Your task to perform on an android device: open app "DoorDash - Food Delivery" (install if not already installed) and go to login screen Image 0: 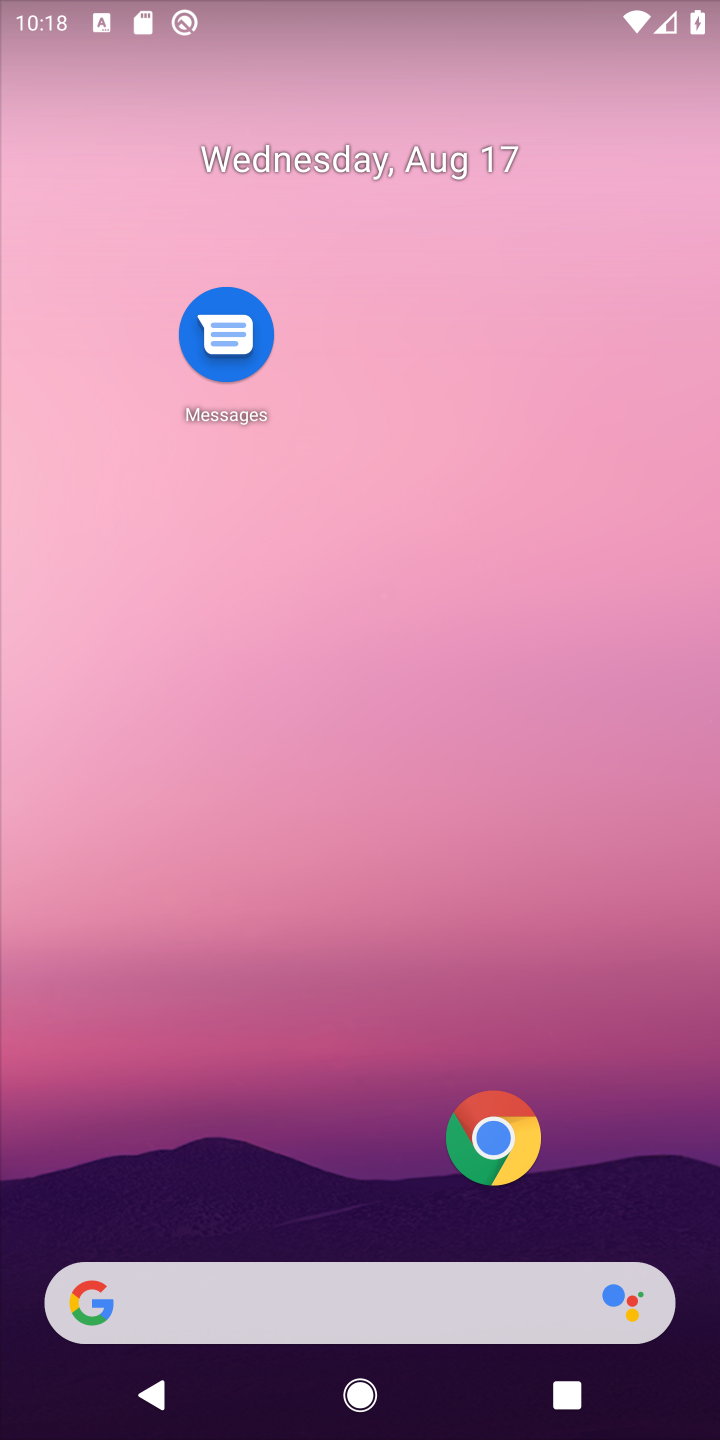
Step 0: drag from (168, 1209) to (215, 377)
Your task to perform on an android device: open app "DoorDash - Food Delivery" (install if not already installed) and go to login screen Image 1: 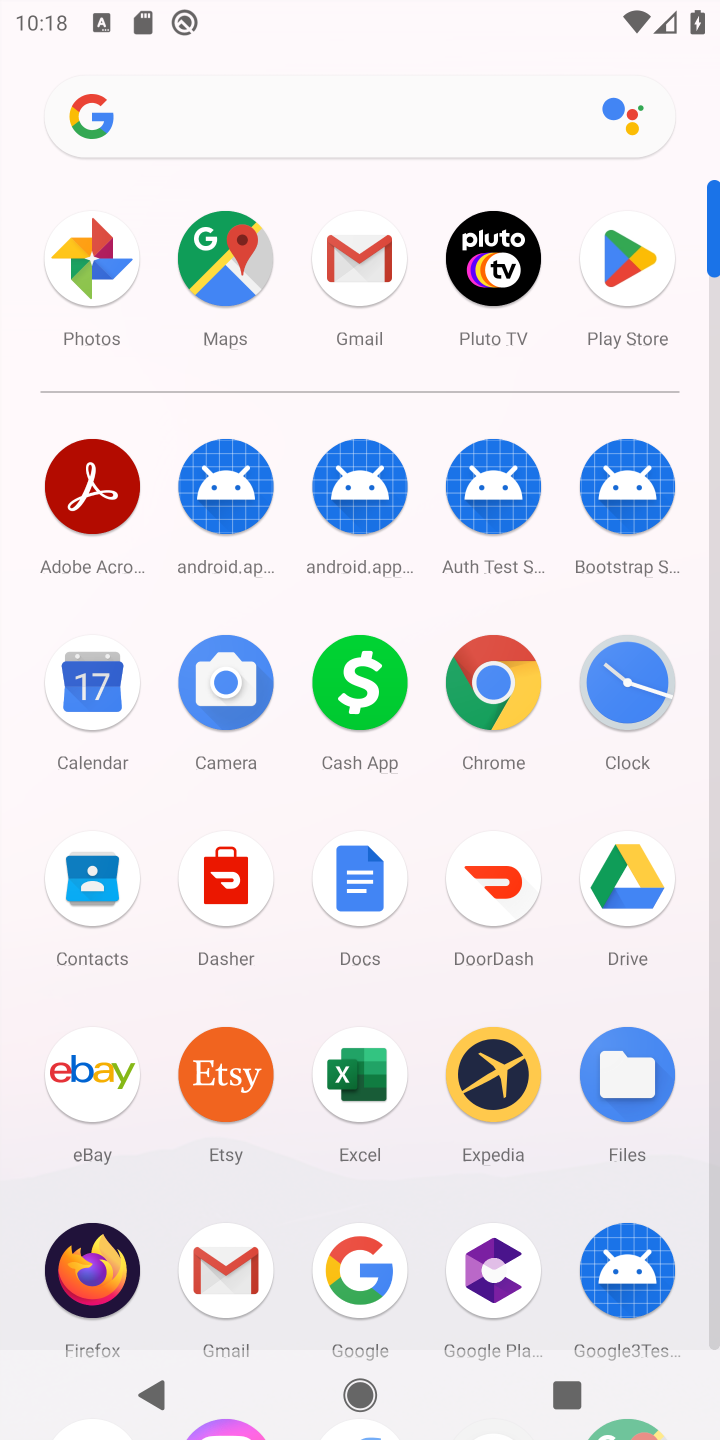
Step 1: click (611, 252)
Your task to perform on an android device: open app "DoorDash - Food Delivery" (install if not already installed) and go to login screen Image 2: 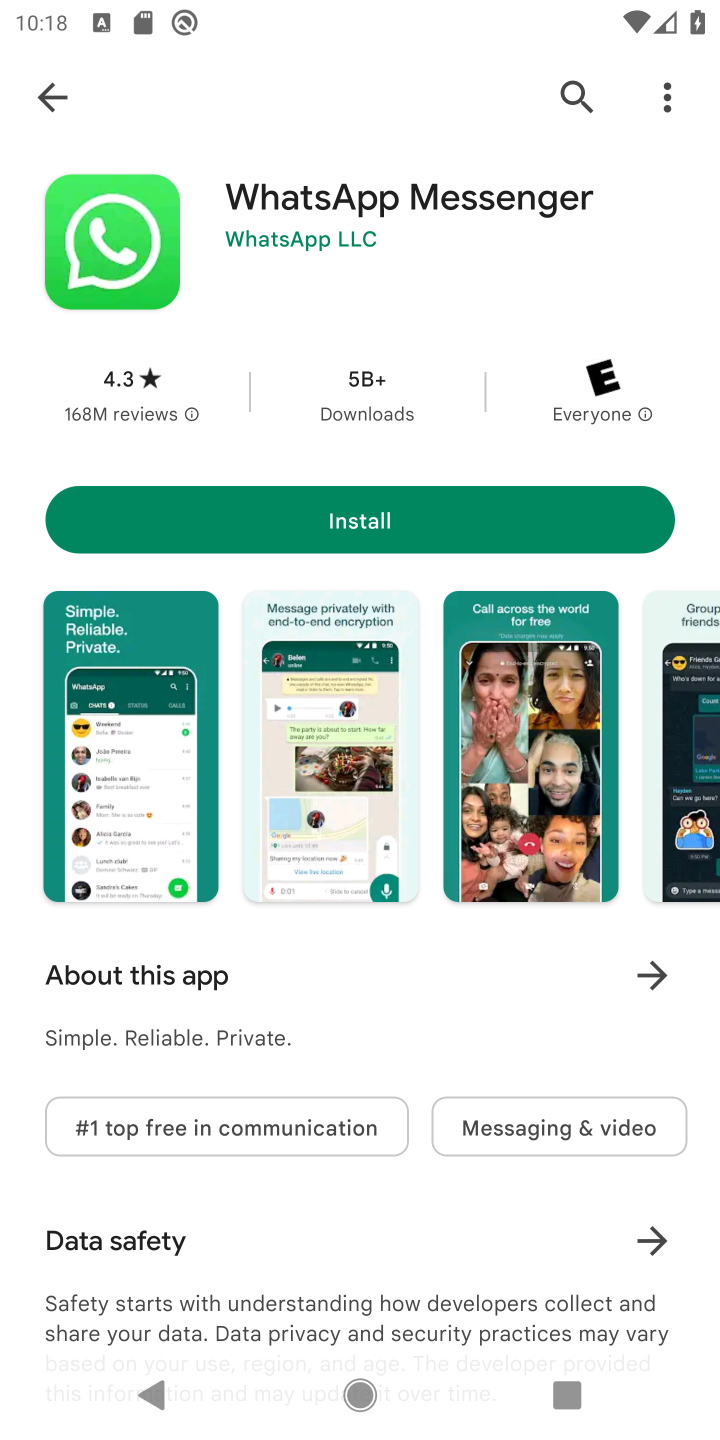
Step 2: click (41, 102)
Your task to perform on an android device: open app "DoorDash - Food Delivery" (install if not already installed) and go to login screen Image 3: 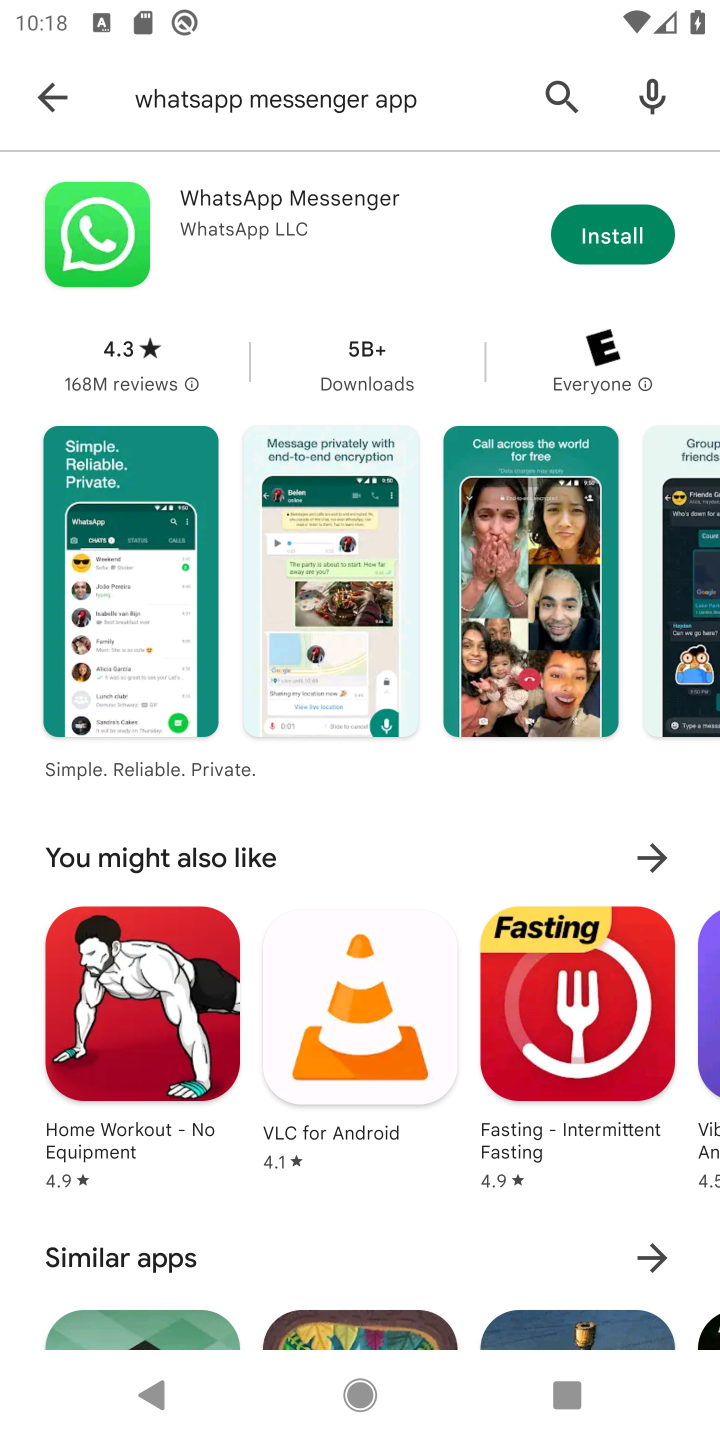
Step 3: click (41, 102)
Your task to perform on an android device: open app "DoorDash - Food Delivery" (install if not already installed) and go to login screen Image 4: 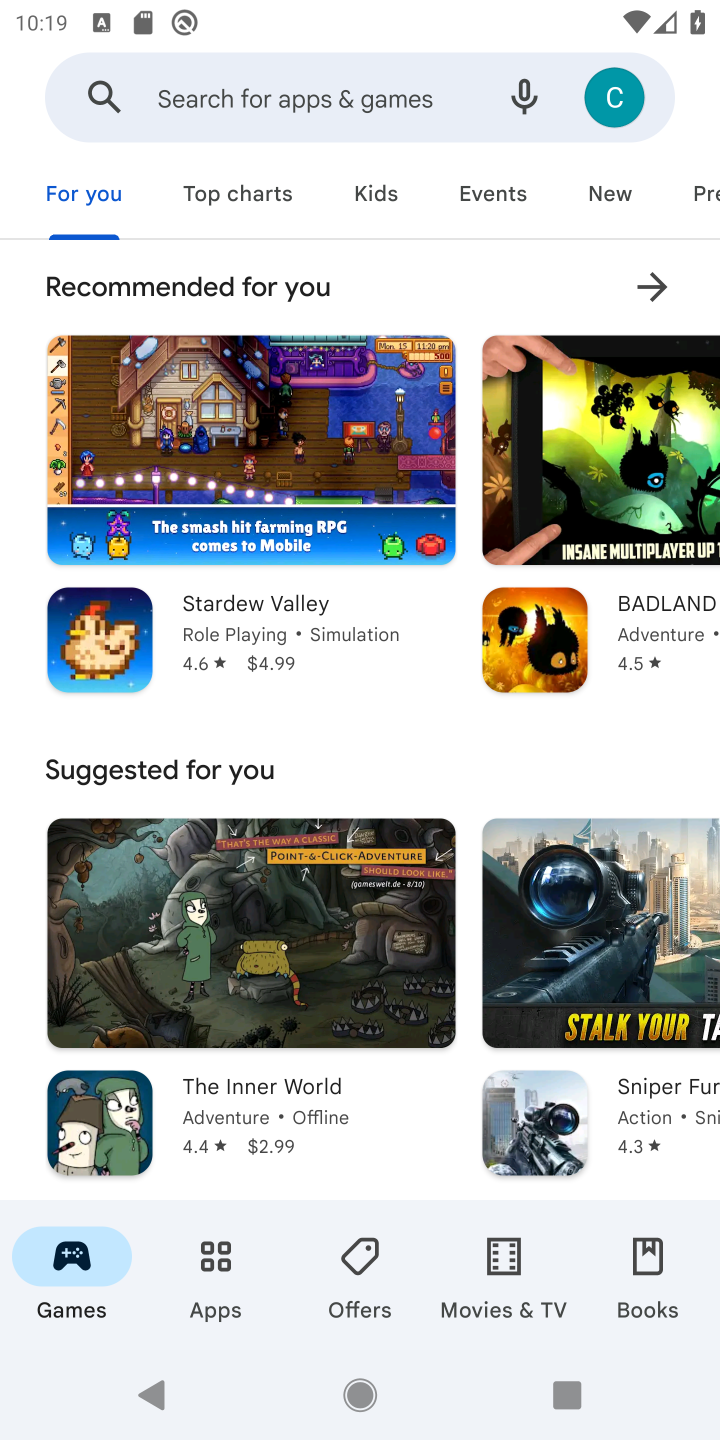
Step 4: click (340, 116)
Your task to perform on an android device: open app "DoorDash - Food Delivery" (install if not already installed) and go to login screen Image 5: 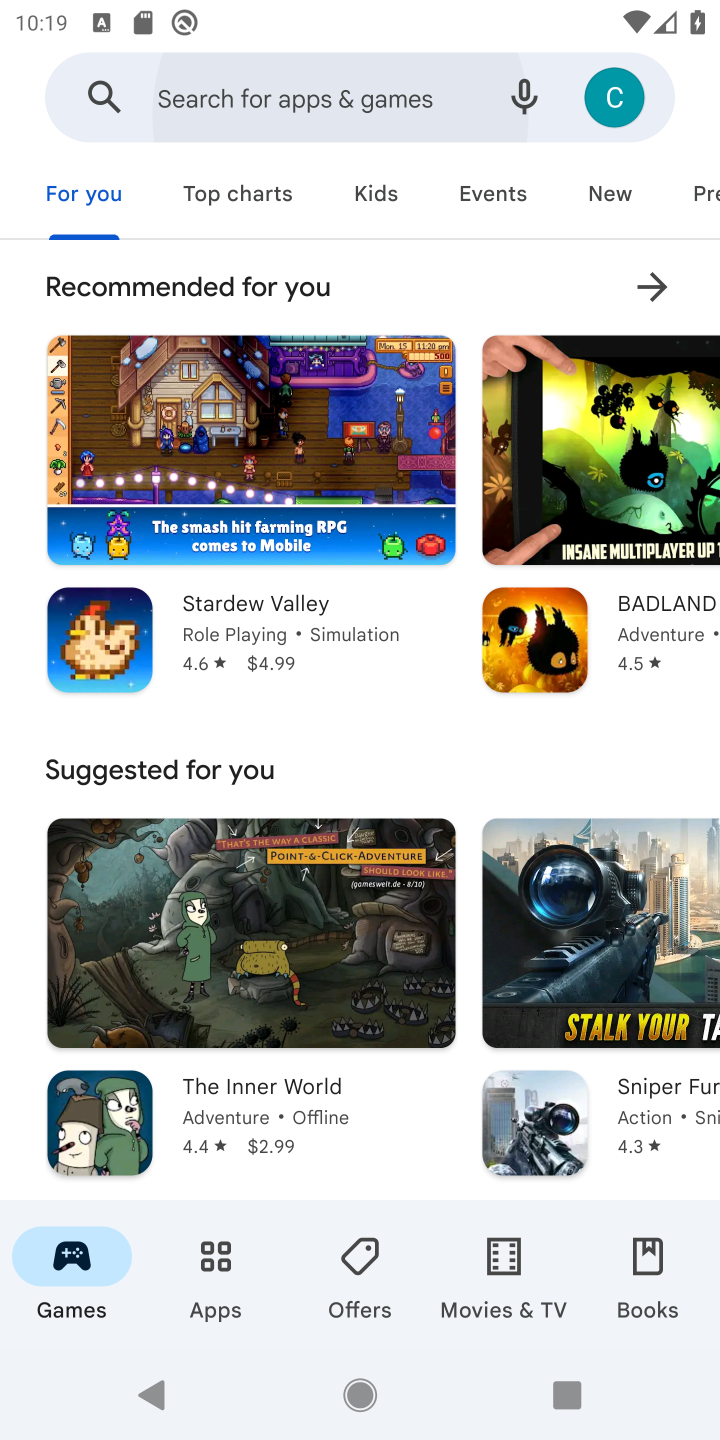
Step 5: click (397, 102)
Your task to perform on an android device: open app "DoorDash - Food Delivery" (install if not already installed) and go to login screen Image 6: 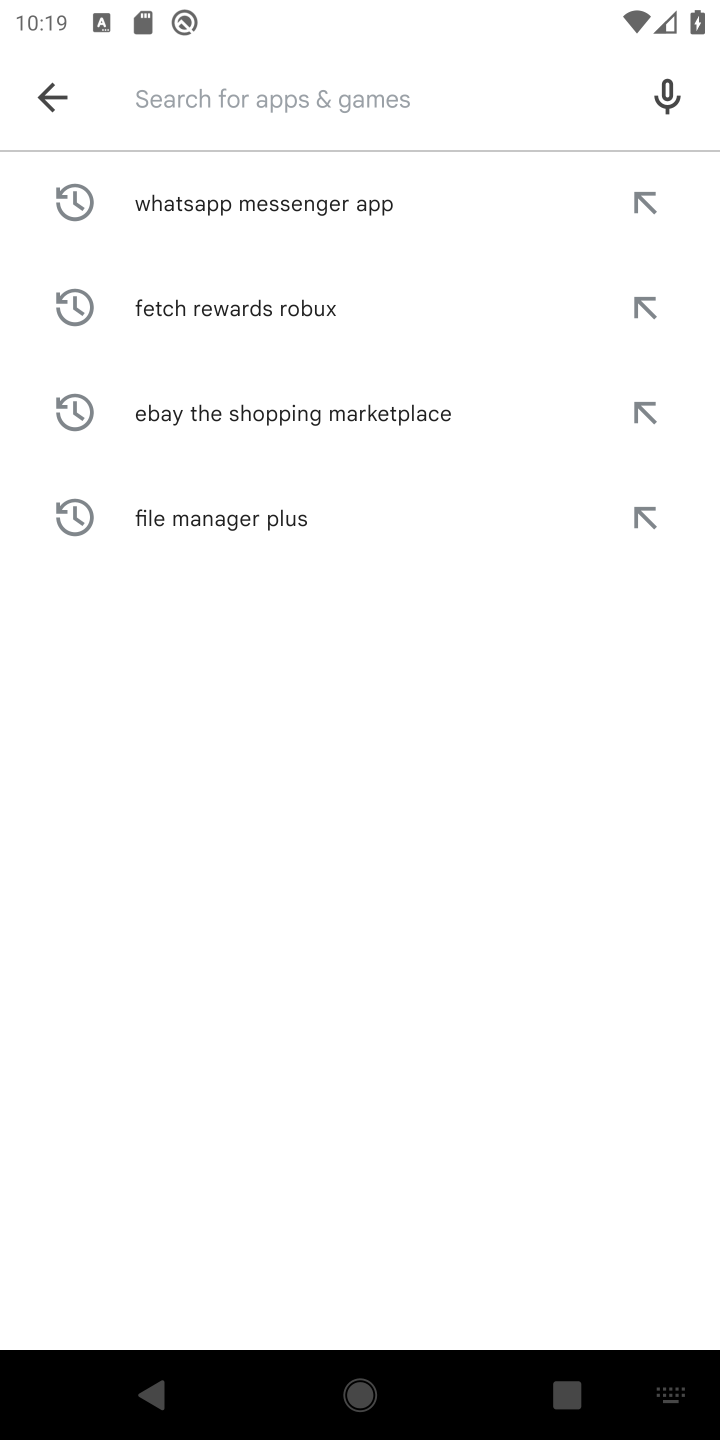
Step 6: type "DoorDash "
Your task to perform on an android device: open app "DoorDash - Food Delivery" (install if not already installed) and go to login screen Image 7: 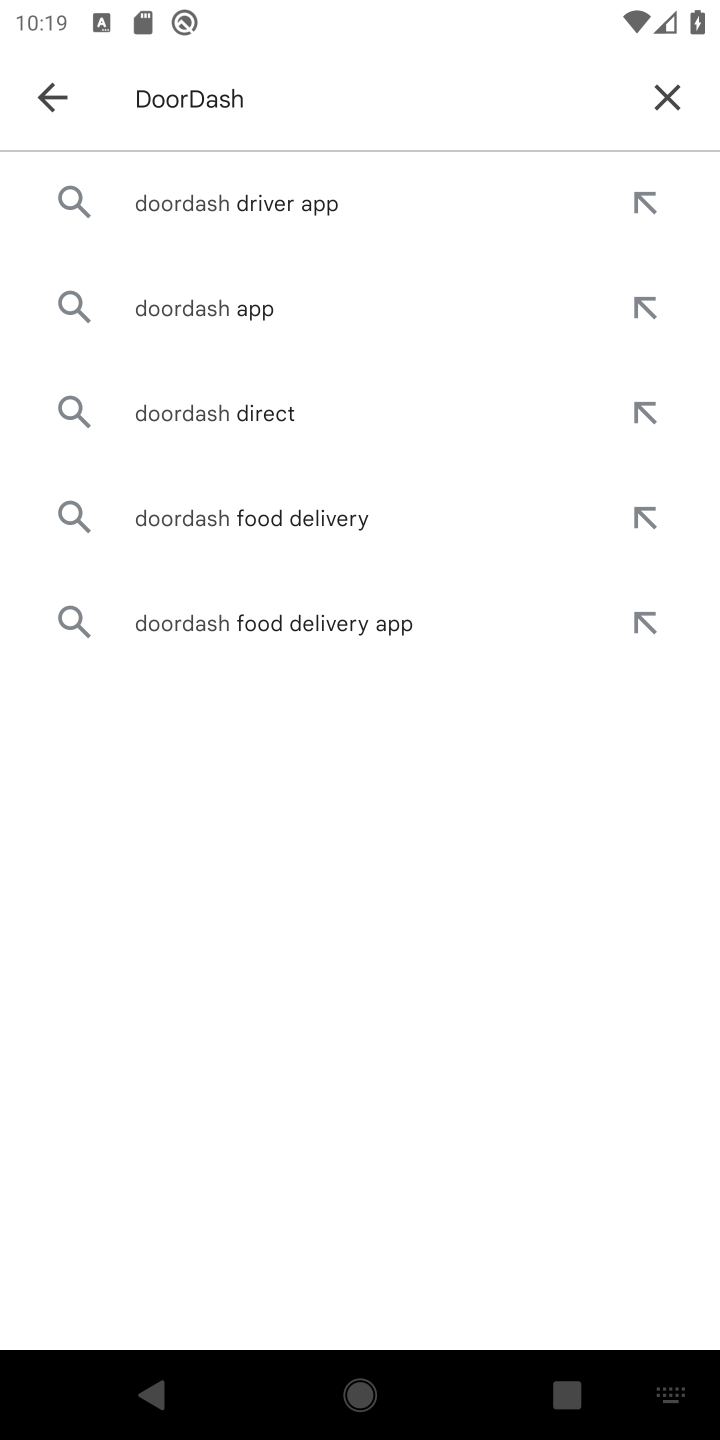
Step 7: click (222, 310)
Your task to perform on an android device: open app "DoorDash - Food Delivery" (install if not already installed) and go to login screen Image 8: 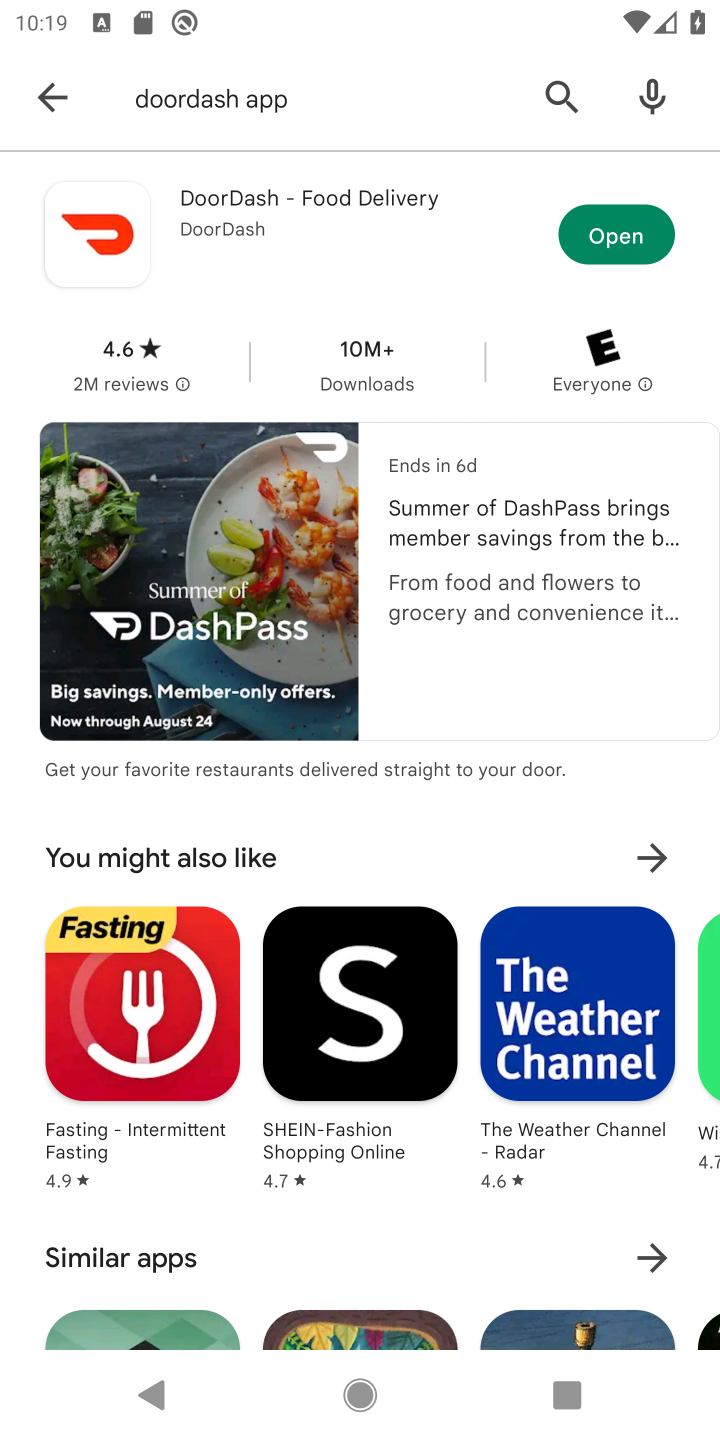
Step 8: click (607, 251)
Your task to perform on an android device: open app "DoorDash - Food Delivery" (install if not already installed) and go to login screen Image 9: 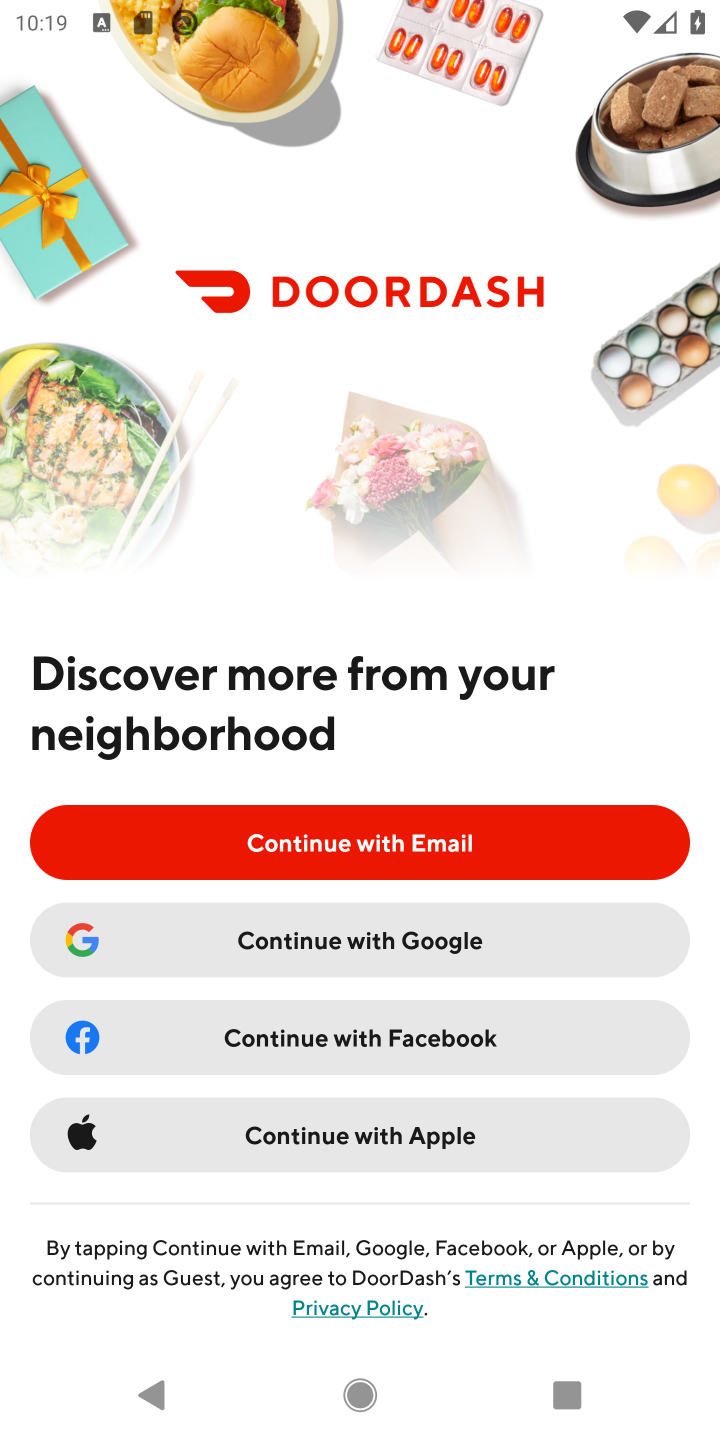
Step 9: task complete